Your task to perform on an android device: open chrome privacy settings Image 0: 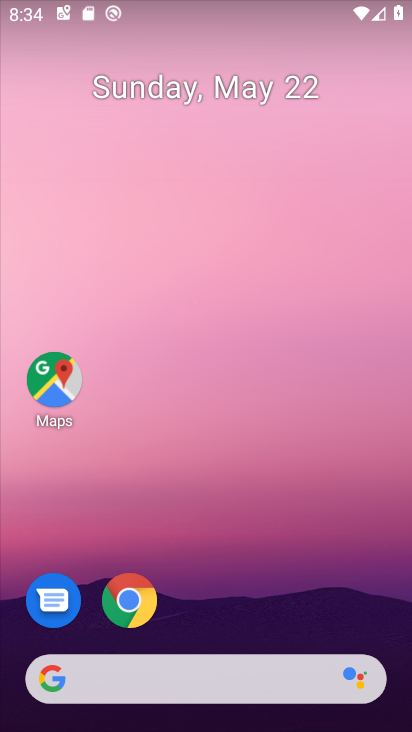
Step 0: drag from (188, 605) to (188, 222)
Your task to perform on an android device: open chrome privacy settings Image 1: 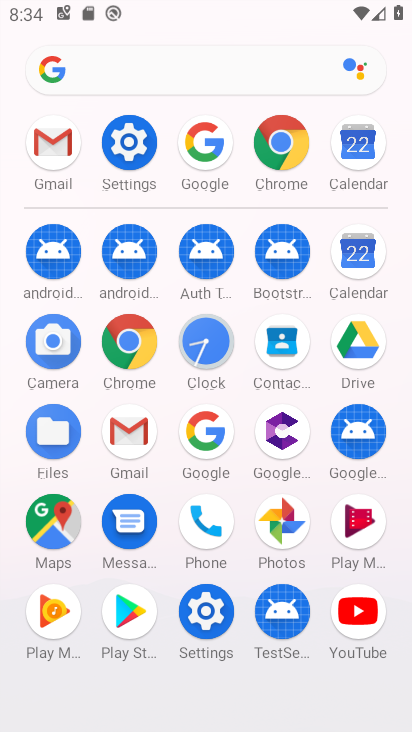
Step 1: click (284, 141)
Your task to perform on an android device: open chrome privacy settings Image 2: 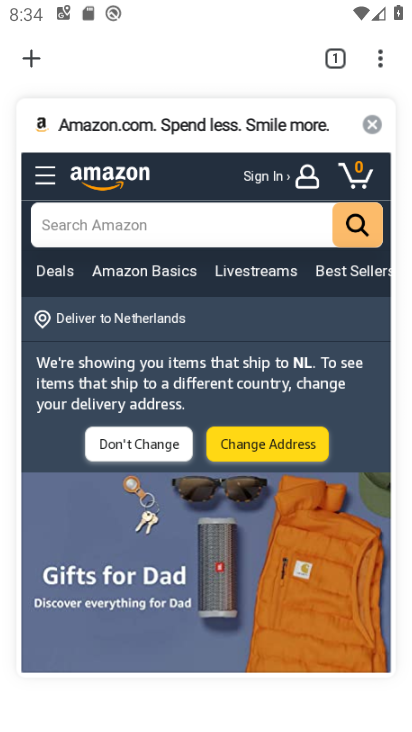
Step 2: click (383, 61)
Your task to perform on an android device: open chrome privacy settings Image 3: 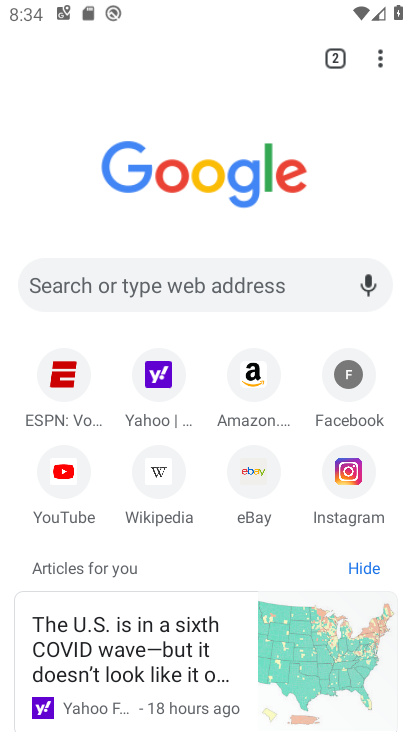
Step 3: click (383, 61)
Your task to perform on an android device: open chrome privacy settings Image 4: 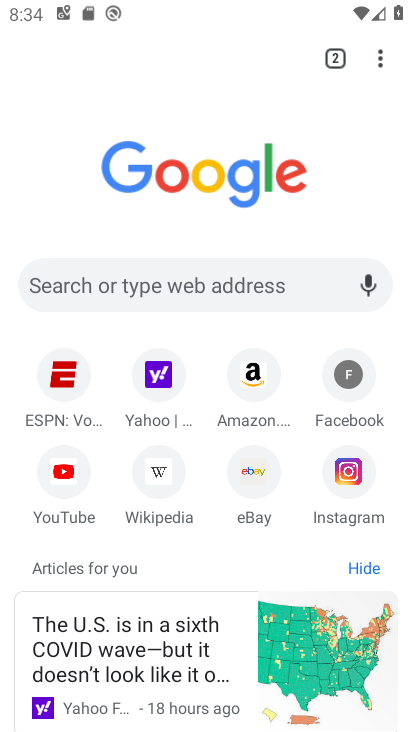
Step 4: click (383, 61)
Your task to perform on an android device: open chrome privacy settings Image 5: 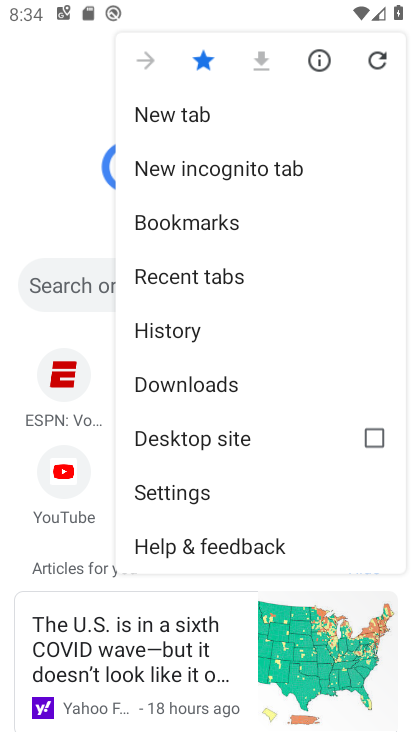
Step 5: click (191, 496)
Your task to perform on an android device: open chrome privacy settings Image 6: 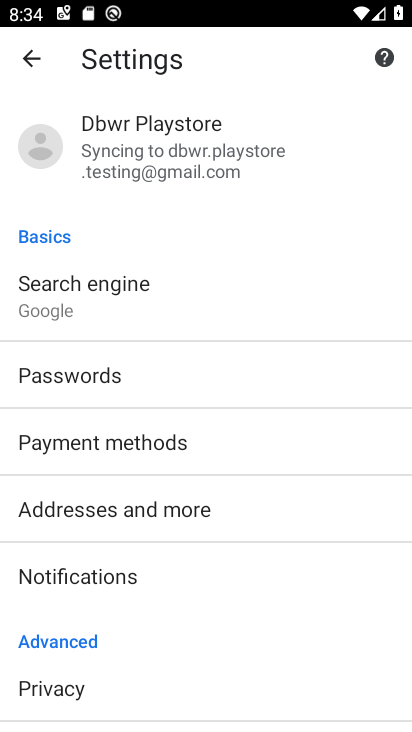
Step 6: click (62, 688)
Your task to perform on an android device: open chrome privacy settings Image 7: 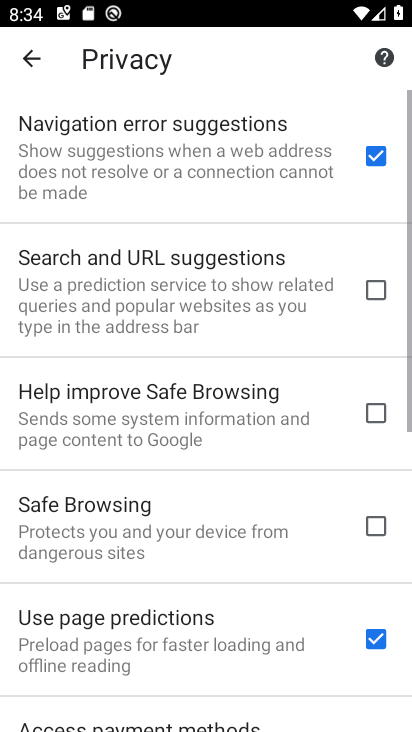
Step 7: task complete